Your task to perform on an android device: What's on my calendar today? Image 0: 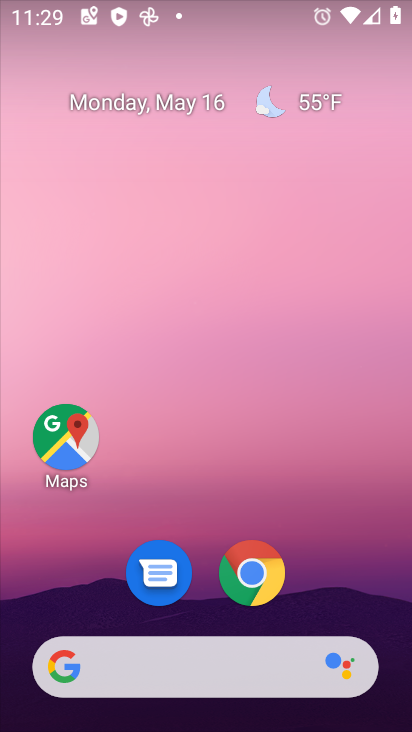
Step 0: drag from (310, 556) to (249, 205)
Your task to perform on an android device: What's on my calendar today? Image 1: 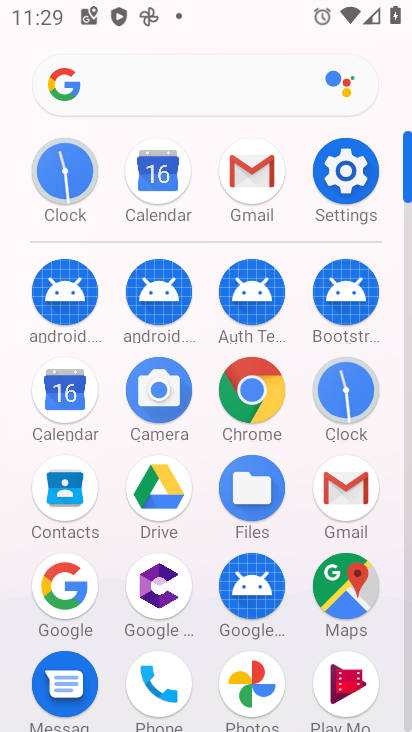
Step 1: click (74, 410)
Your task to perform on an android device: What's on my calendar today? Image 2: 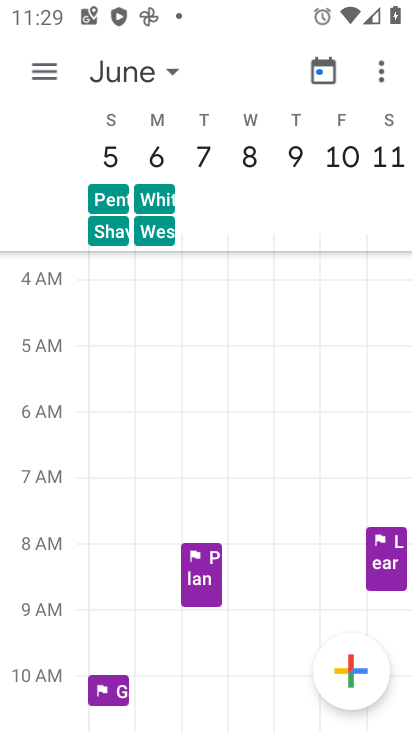
Step 2: click (43, 66)
Your task to perform on an android device: What's on my calendar today? Image 3: 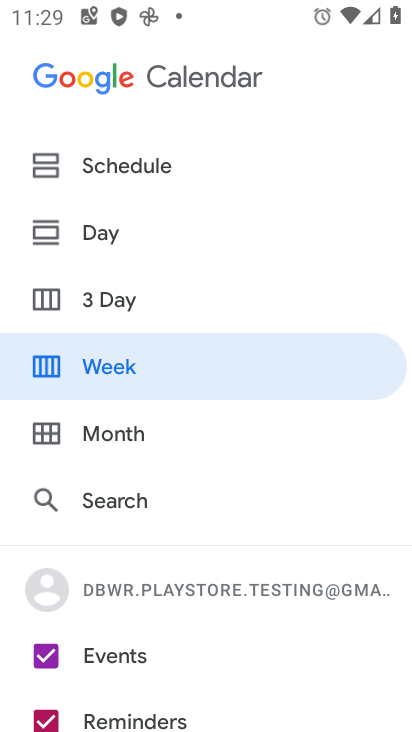
Step 3: click (123, 229)
Your task to perform on an android device: What's on my calendar today? Image 4: 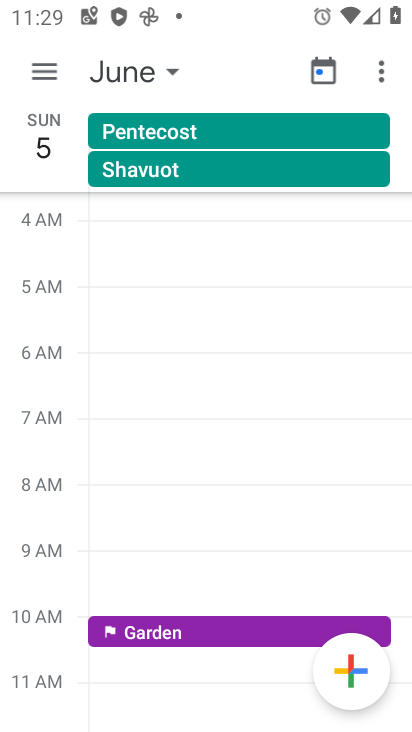
Step 4: click (140, 85)
Your task to perform on an android device: What's on my calendar today? Image 5: 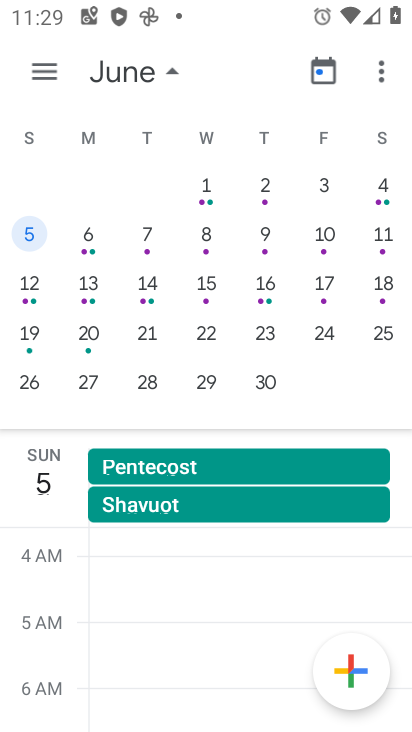
Step 5: drag from (146, 236) to (363, 275)
Your task to perform on an android device: What's on my calendar today? Image 6: 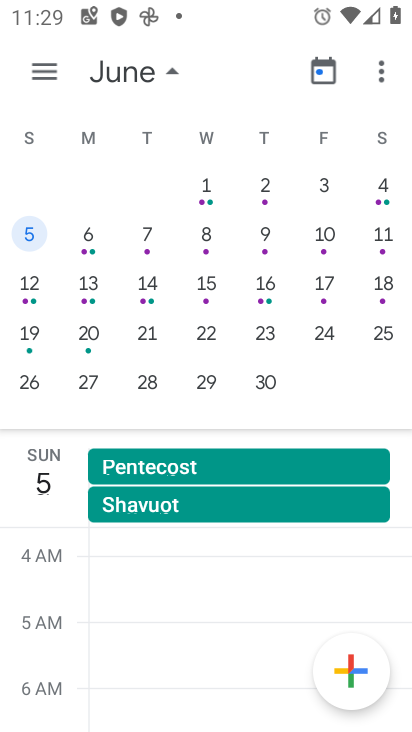
Step 6: drag from (38, 229) to (407, 334)
Your task to perform on an android device: What's on my calendar today? Image 7: 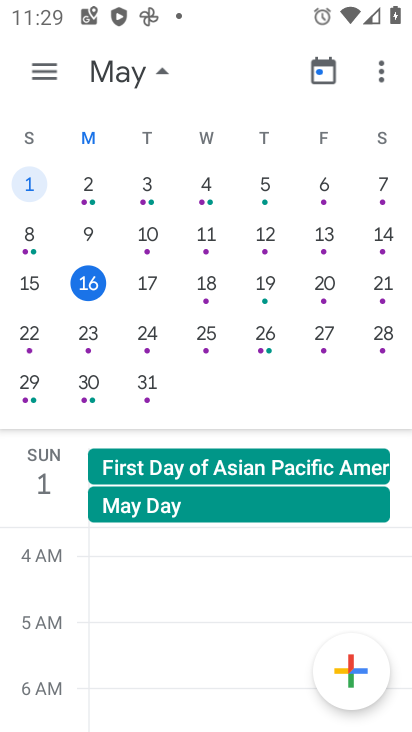
Step 7: click (87, 284)
Your task to perform on an android device: What's on my calendar today? Image 8: 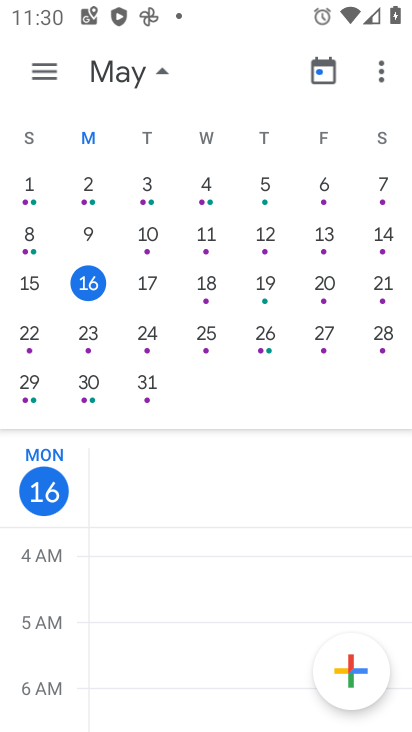
Step 8: task complete